Your task to perform on an android device: all mails in gmail Image 0: 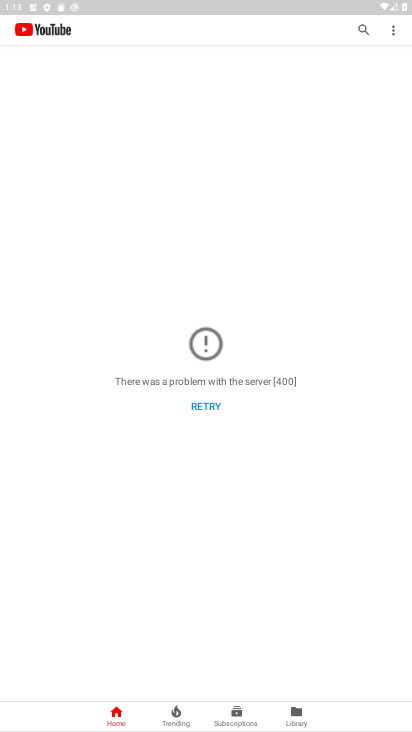
Step 0: press home button
Your task to perform on an android device: all mails in gmail Image 1: 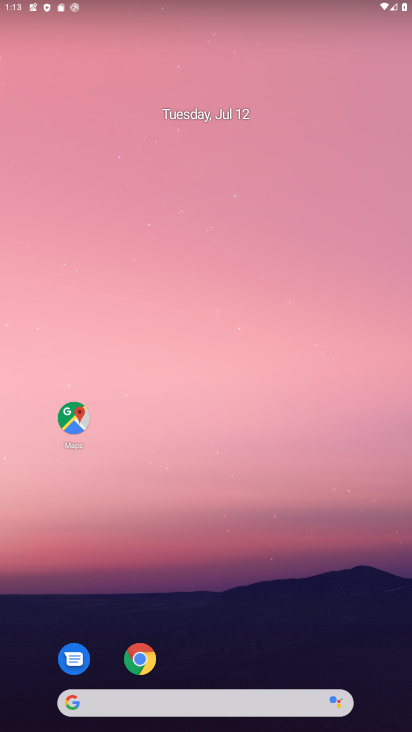
Step 1: drag from (212, 669) to (369, 128)
Your task to perform on an android device: all mails in gmail Image 2: 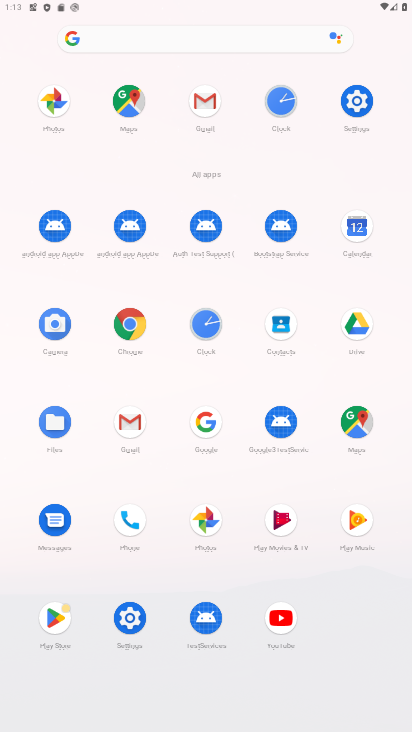
Step 2: click (137, 433)
Your task to perform on an android device: all mails in gmail Image 3: 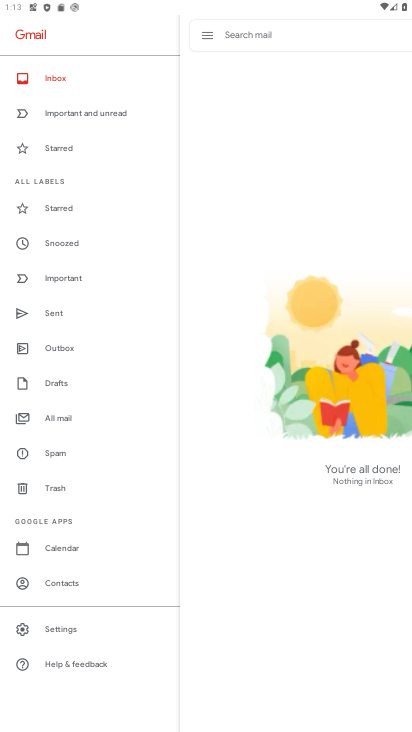
Step 3: click (79, 416)
Your task to perform on an android device: all mails in gmail Image 4: 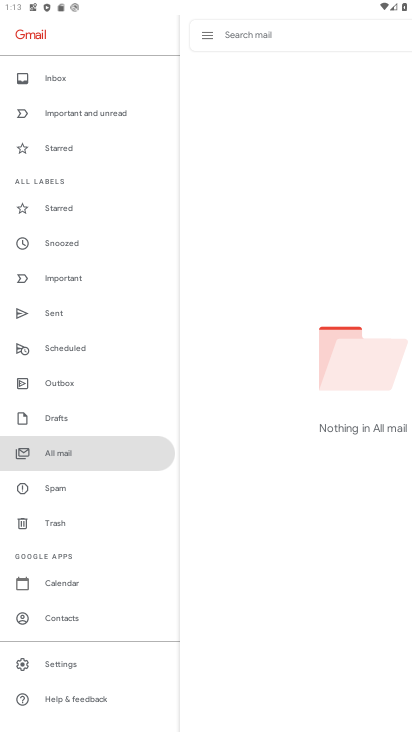
Step 4: task complete